Your task to perform on an android device: turn on improve location accuracy Image 0: 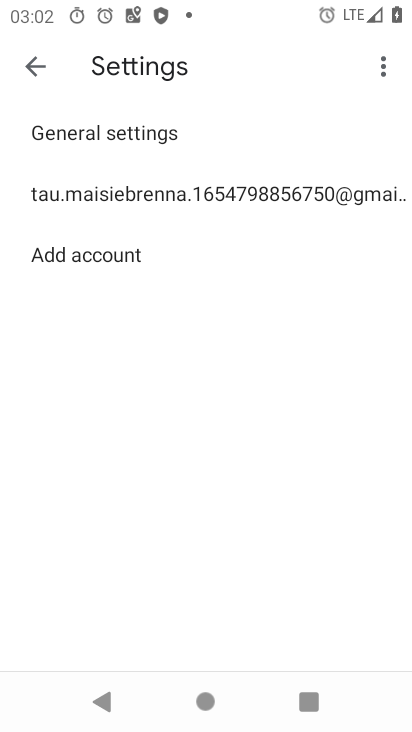
Step 0: press home button
Your task to perform on an android device: turn on improve location accuracy Image 1: 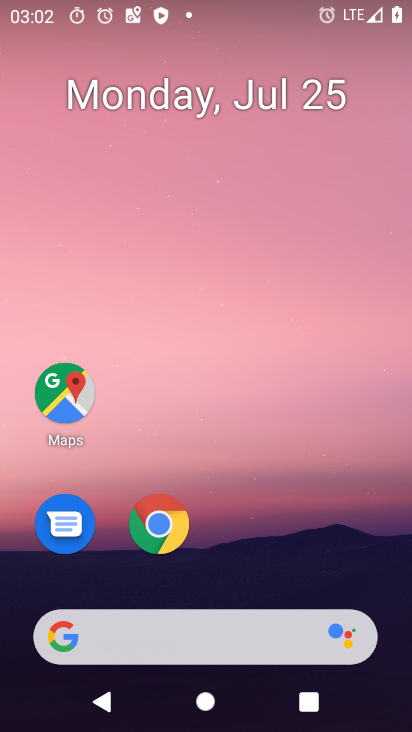
Step 1: drag from (207, 580) to (254, 136)
Your task to perform on an android device: turn on improve location accuracy Image 2: 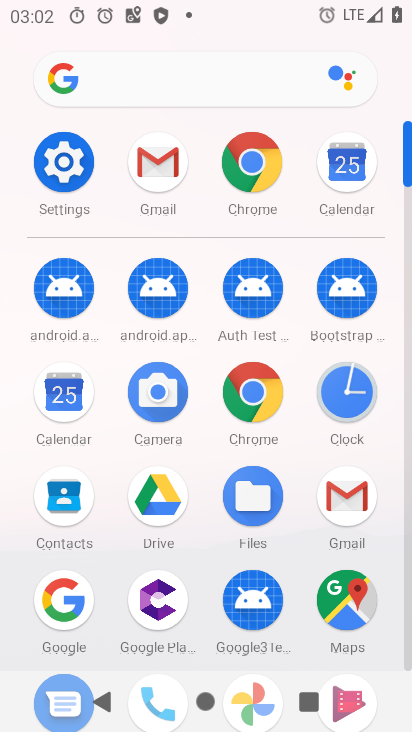
Step 2: click (69, 166)
Your task to perform on an android device: turn on improve location accuracy Image 3: 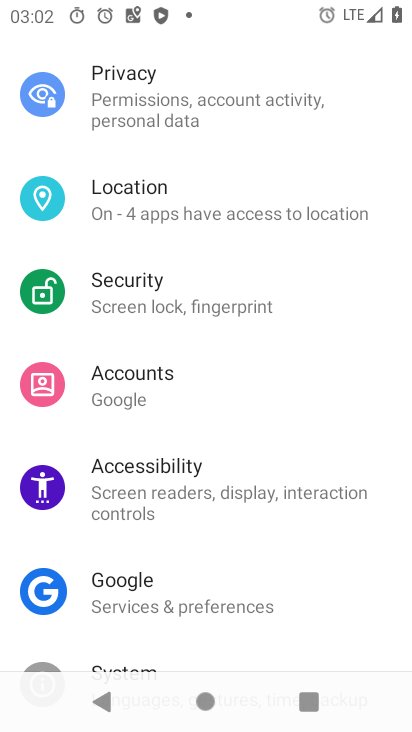
Step 3: click (161, 208)
Your task to perform on an android device: turn on improve location accuracy Image 4: 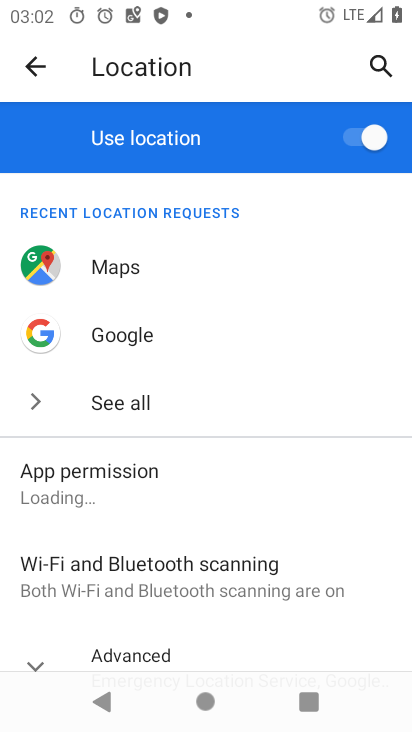
Step 4: click (122, 655)
Your task to perform on an android device: turn on improve location accuracy Image 5: 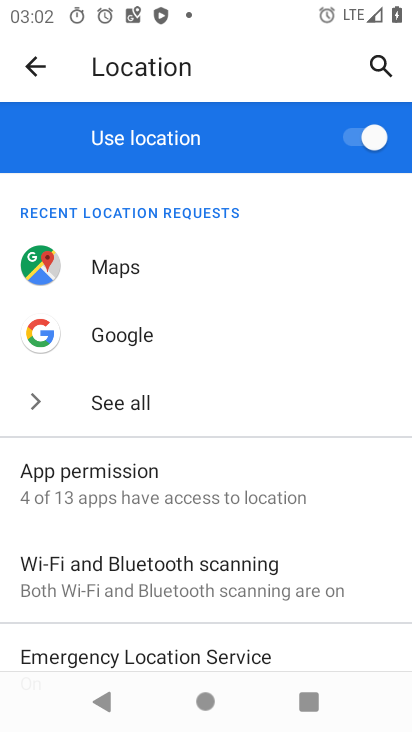
Step 5: drag from (210, 636) to (190, 91)
Your task to perform on an android device: turn on improve location accuracy Image 6: 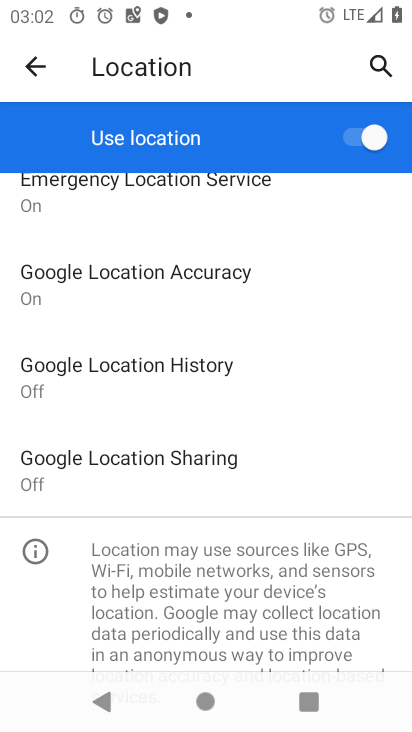
Step 6: click (141, 274)
Your task to perform on an android device: turn on improve location accuracy Image 7: 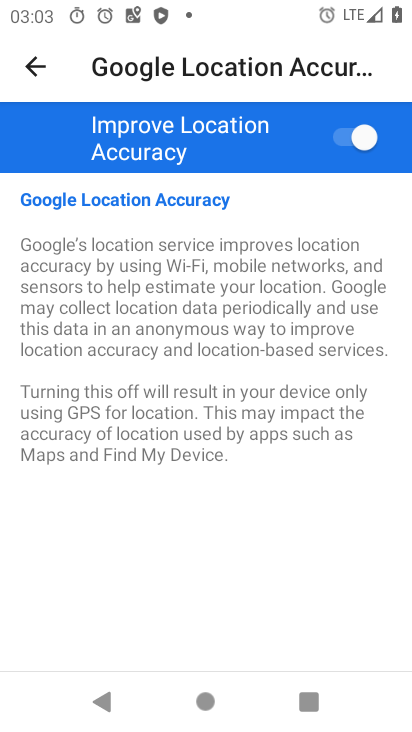
Step 7: task complete